Your task to perform on an android device: Open calendar and show me the second week of next month Image 0: 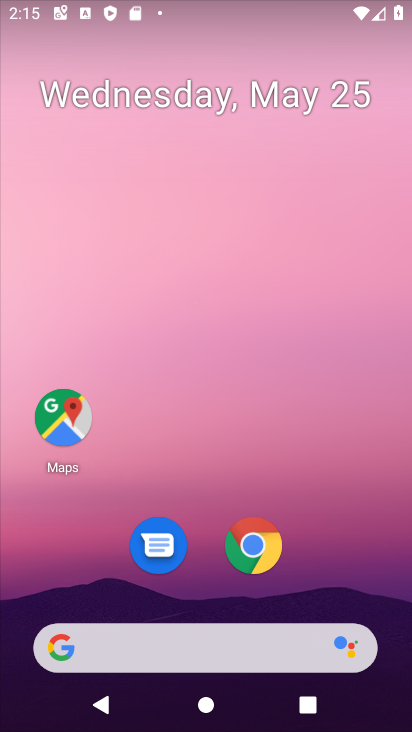
Step 0: drag from (382, 554) to (378, 381)
Your task to perform on an android device: Open calendar and show me the second week of next month Image 1: 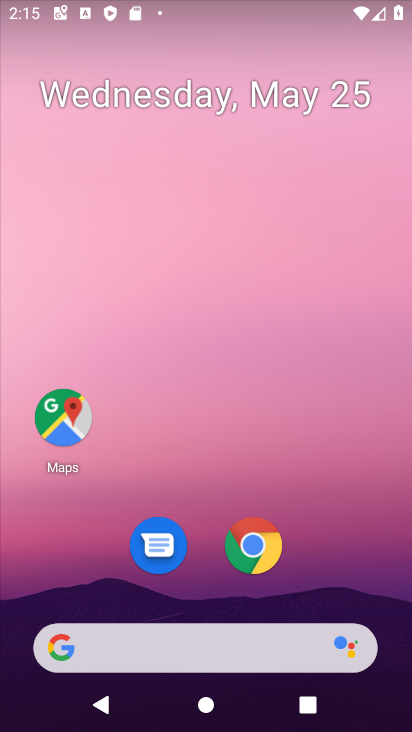
Step 1: drag from (332, 585) to (282, 105)
Your task to perform on an android device: Open calendar and show me the second week of next month Image 2: 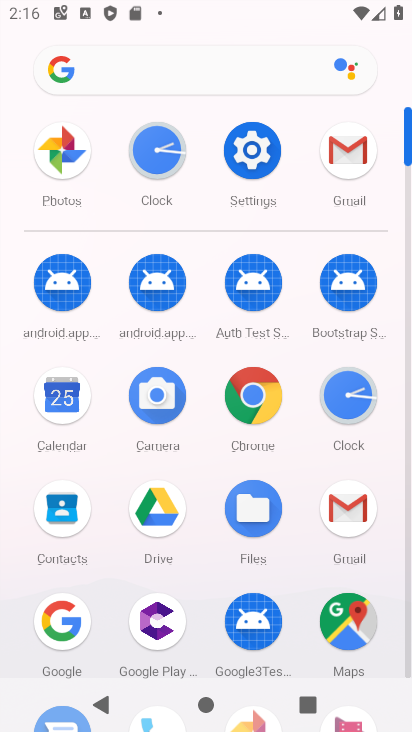
Step 2: click (50, 413)
Your task to perform on an android device: Open calendar and show me the second week of next month Image 3: 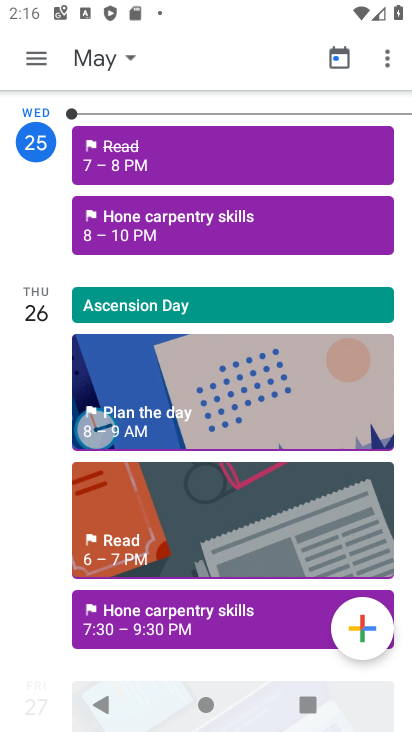
Step 3: task complete